Your task to perform on an android device: open app "Pandora - Music & Podcasts" (install if not already installed) Image 0: 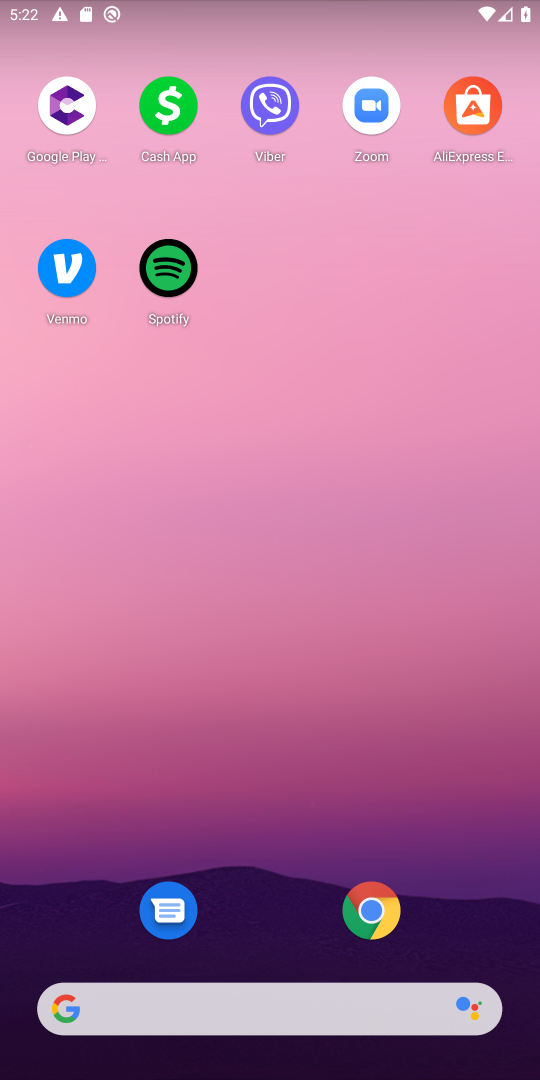
Step 0: drag from (256, 996) to (203, 163)
Your task to perform on an android device: open app "Pandora - Music & Podcasts" (install if not already installed) Image 1: 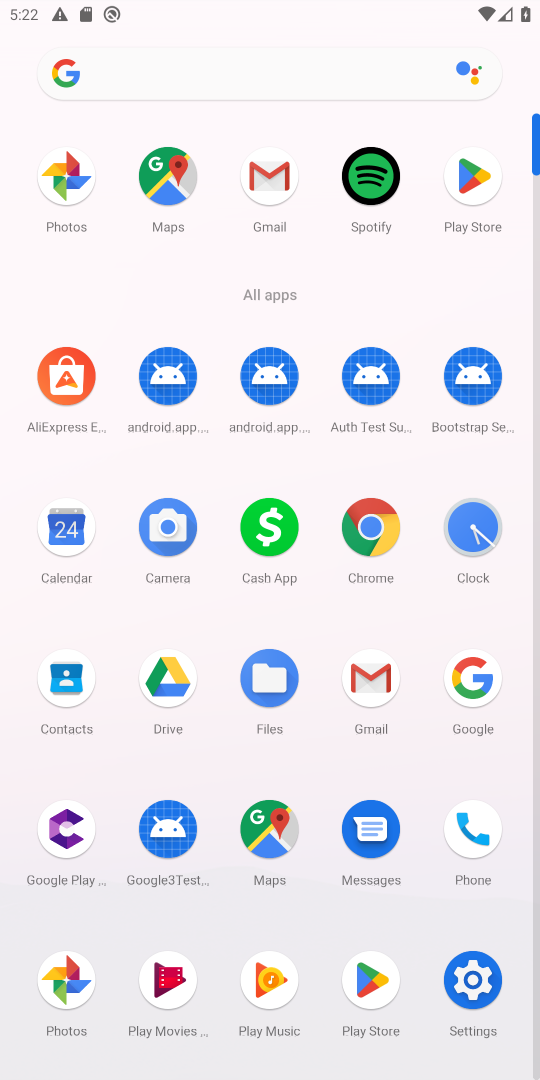
Step 1: click (454, 184)
Your task to perform on an android device: open app "Pandora - Music & Podcasts" (install if not already installed) Image 2: 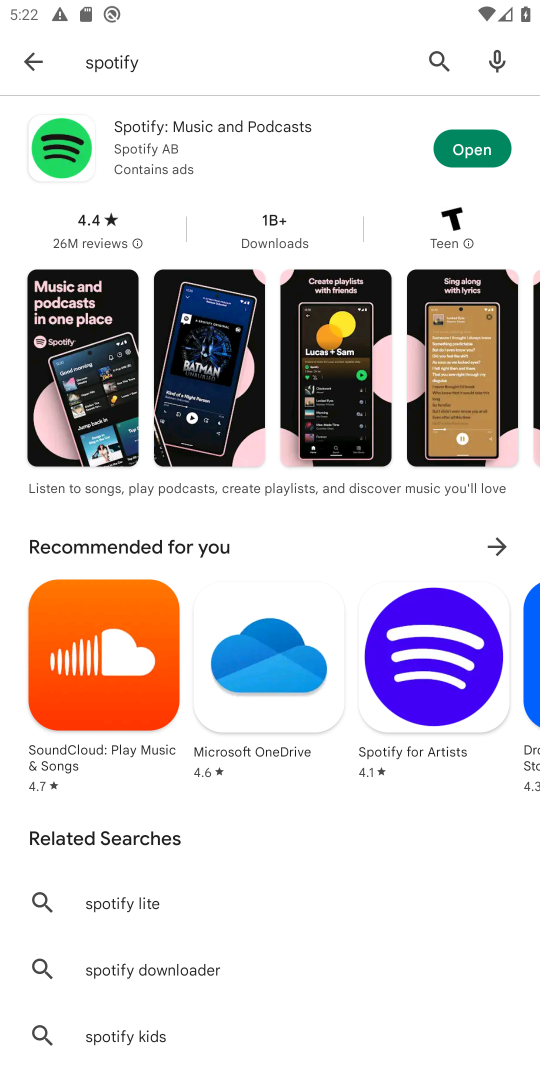
Step 2: click (438, 60)
Your task to perform on an android device: open app "Pandora - Music & Podcasts" (install if not already installed) Image 3: 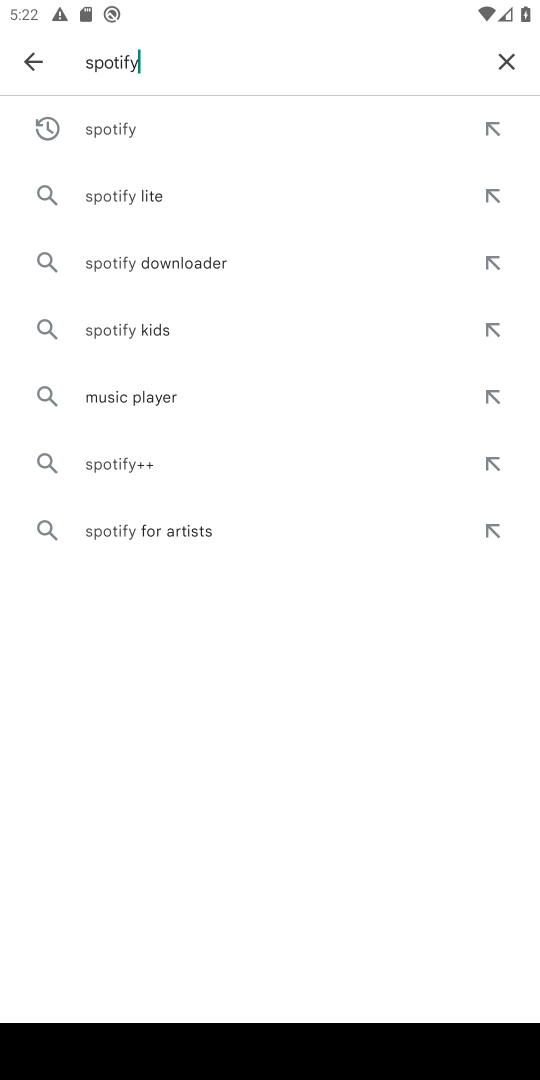
Step 3: click (516, 55)
Your task to perform on an android device: open app "Pandora - Music & Podcasts" (install if not already installed) Image 4: 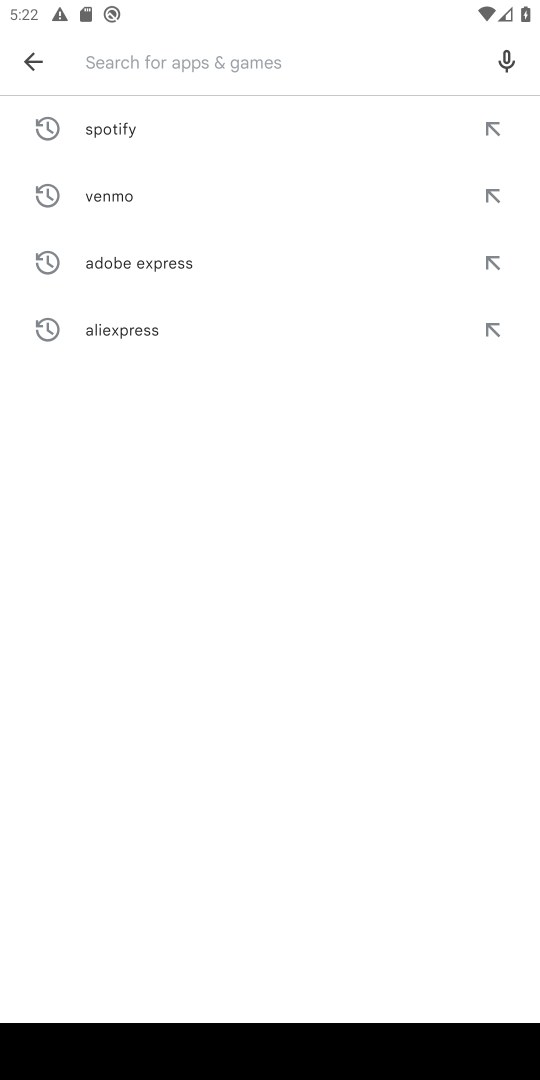
Step 4: type "pandora"
Your task to perform on an android device: open app "Pandora - Music & Podcasts" (install if not already installed) Image 5: 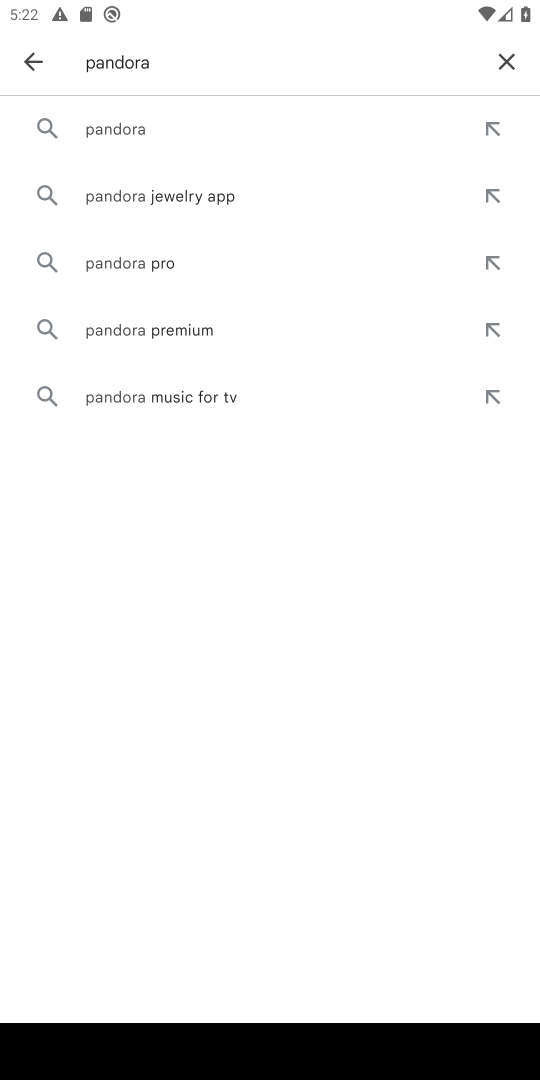
Step 5: click (147, 133)
Your task to perform on an android device: open app "Pandora - Music & Podcasts" (install if not already installed) Image 6: 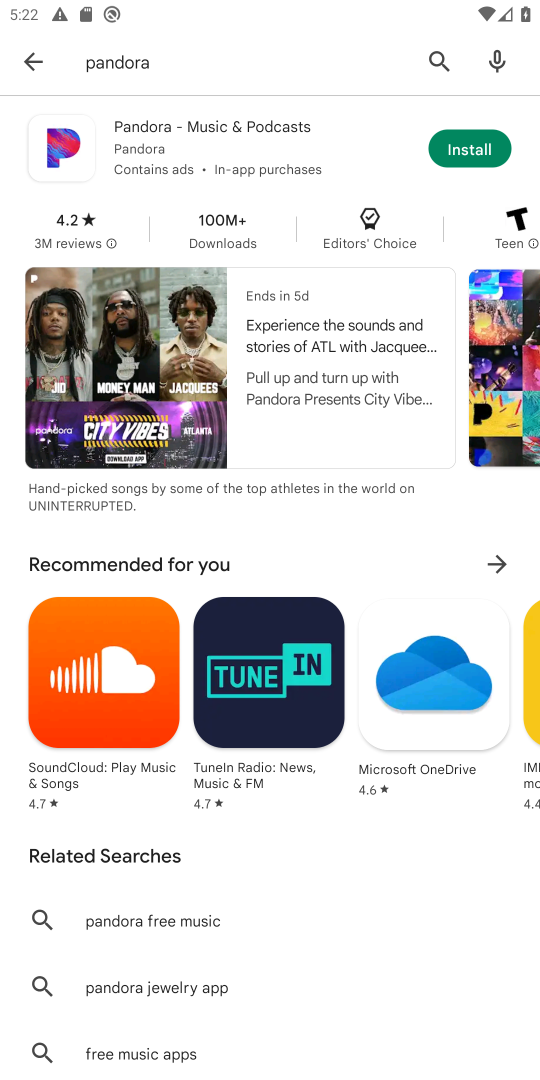
Step 6: click (498, 131)
Your task to perform on an android device: open app "Pandora - Music & Podcasts" (install if not already installed) Image 7: 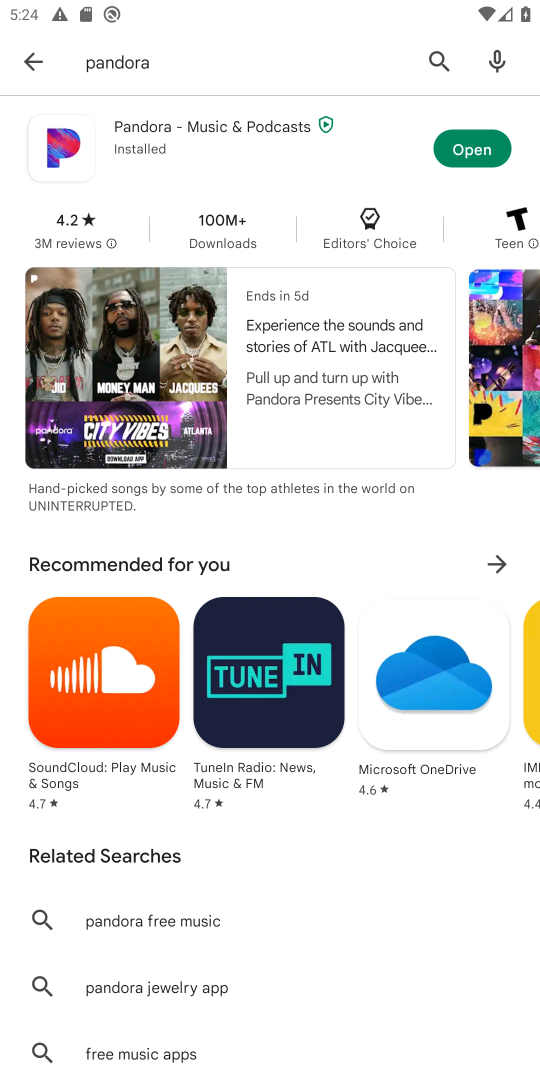
Step 7: click (456, 147)
Your task to perform on an android device: open app "Pandora - Music & Podcasts" (install if not already installed) Image 8: 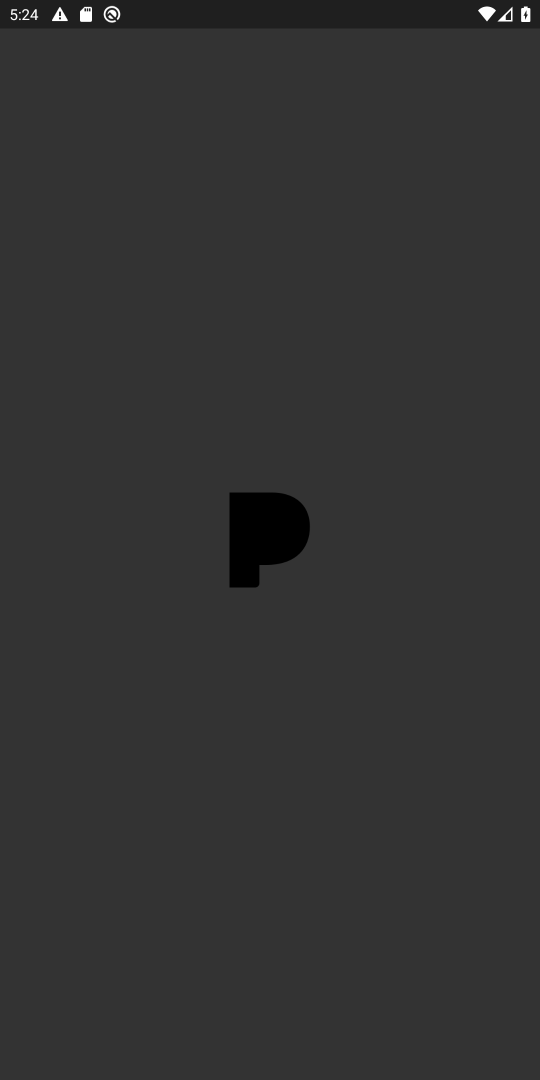
Step 8: task complete